Your task to perform on an android device: open app "Pinterest" Image 0: 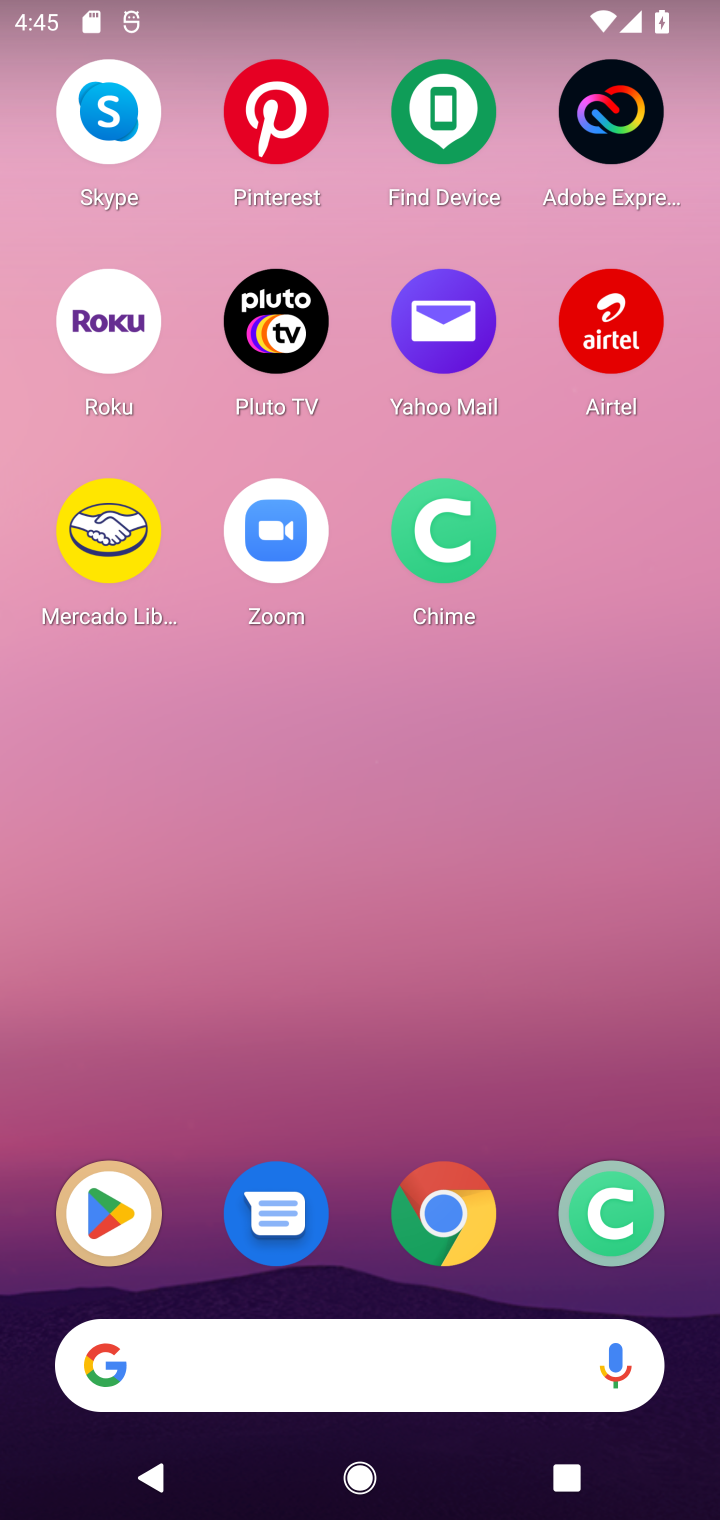
Step 0: drag from (456, 1022) to (596, 163)
Your task to perform on an android device: open app "Pinterest" Image 1: 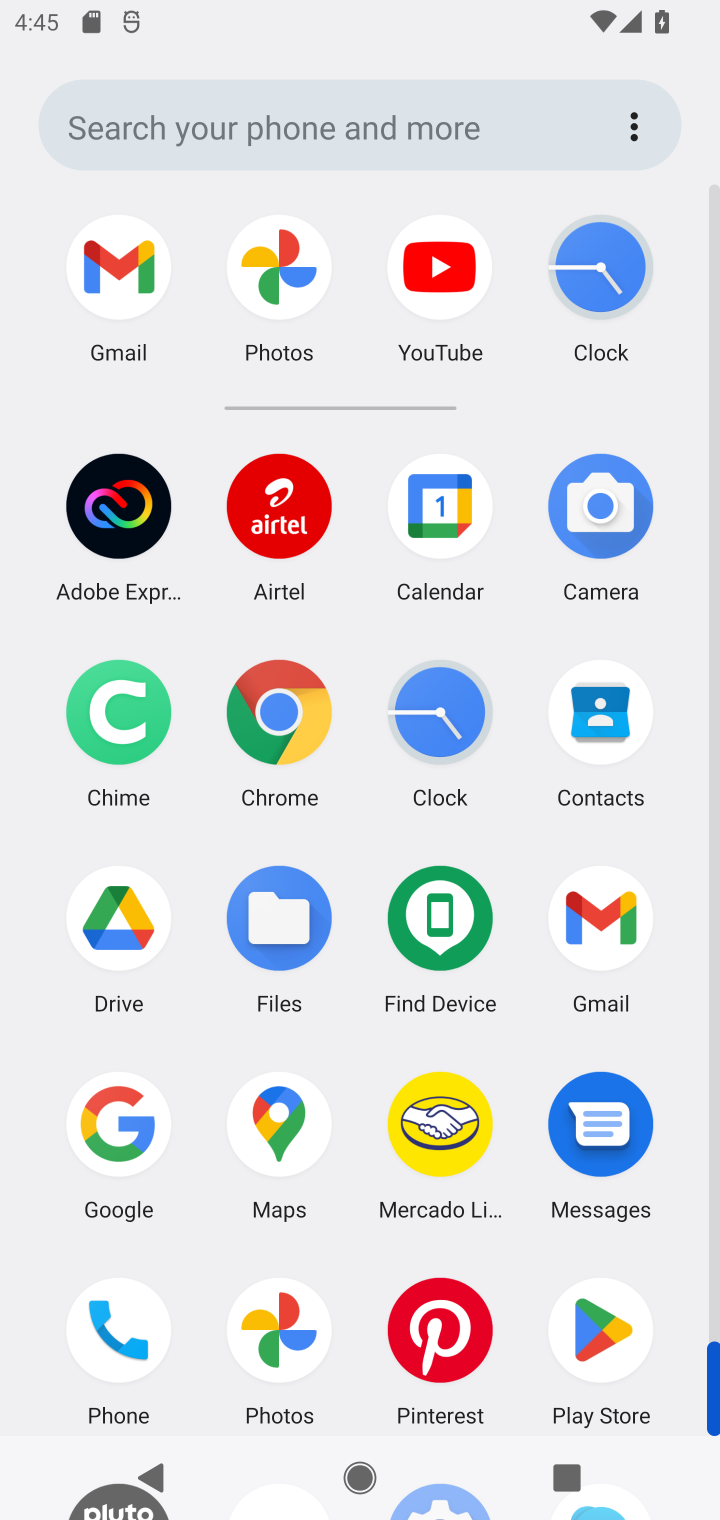
Step 1: click (588, 1332)
Your task to perform on an android device: open app "Pinterest" Image 2: 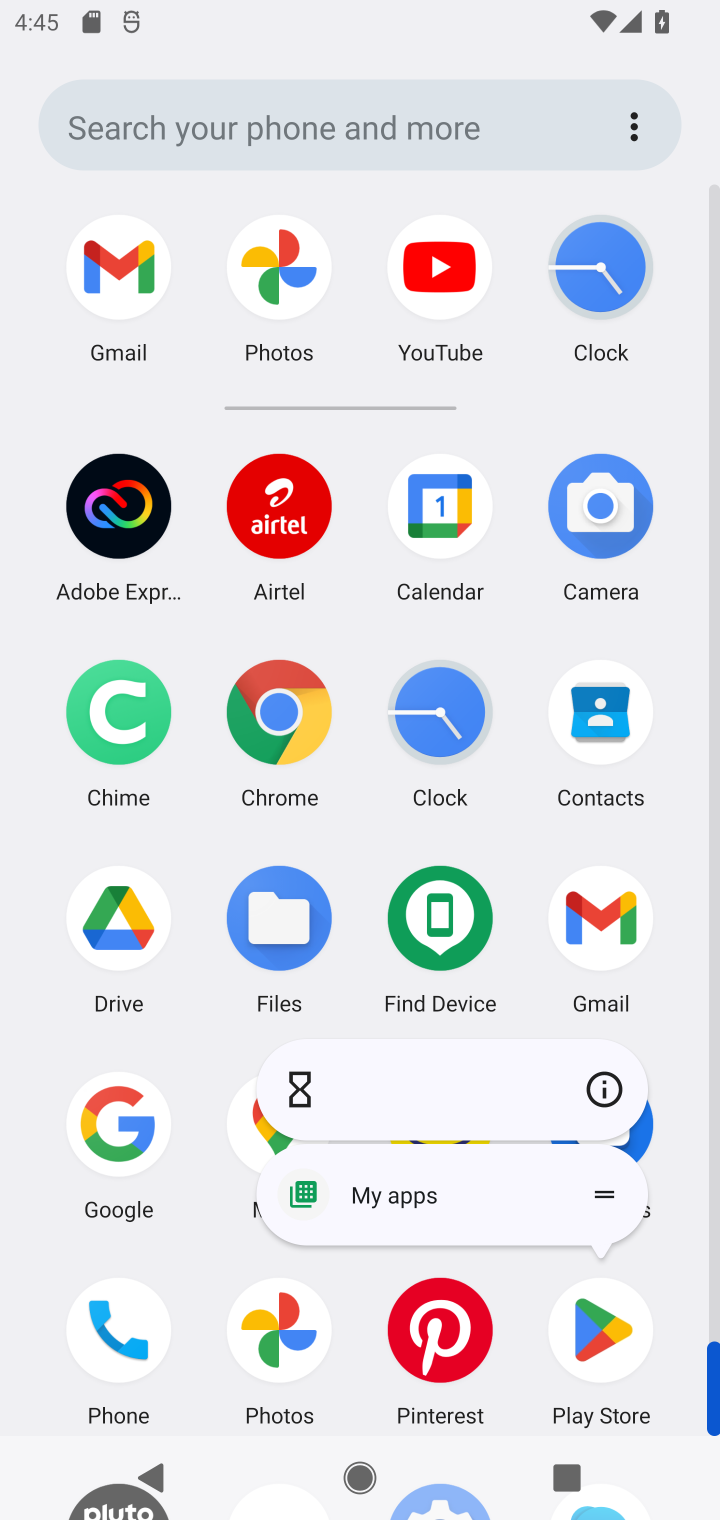
Step 2: click (611, 1322)
Your task to perform on an android device: open app "Pinterest" Image 3: 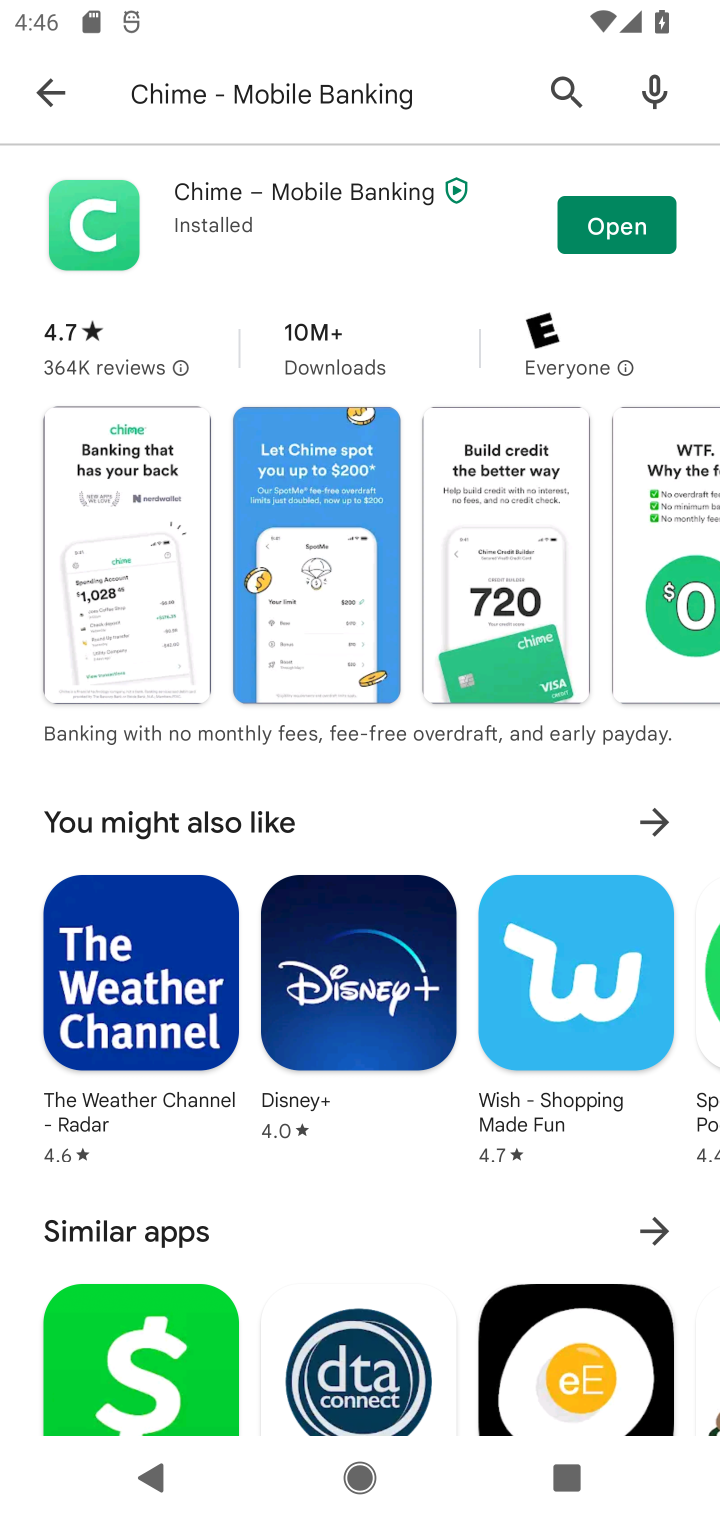
Step 3: click (447, 80)
Your task to perform on an android device: open app "Pinterest" Image 4: 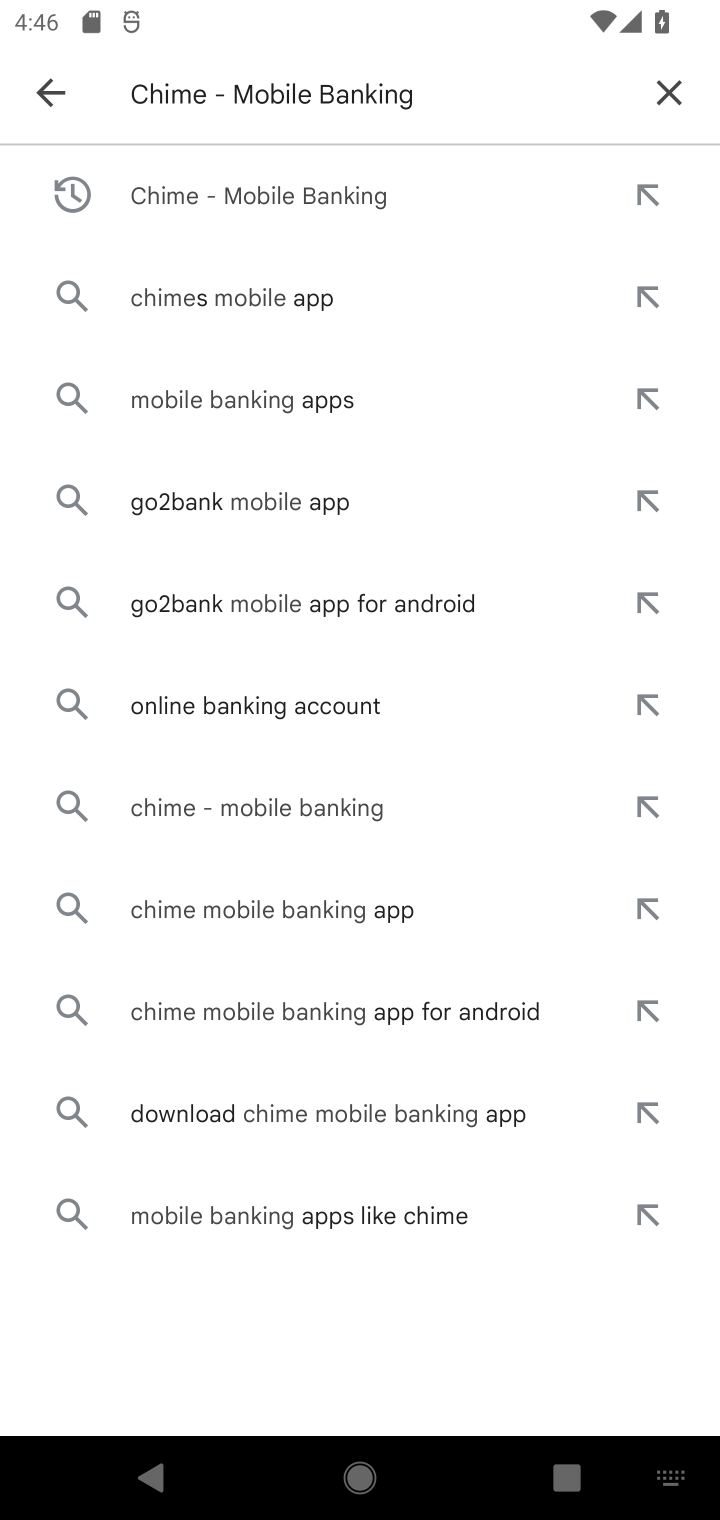
Step 4: click (655, 88)
Your task to perform on an android device: open app "Pinterest" Image 5: 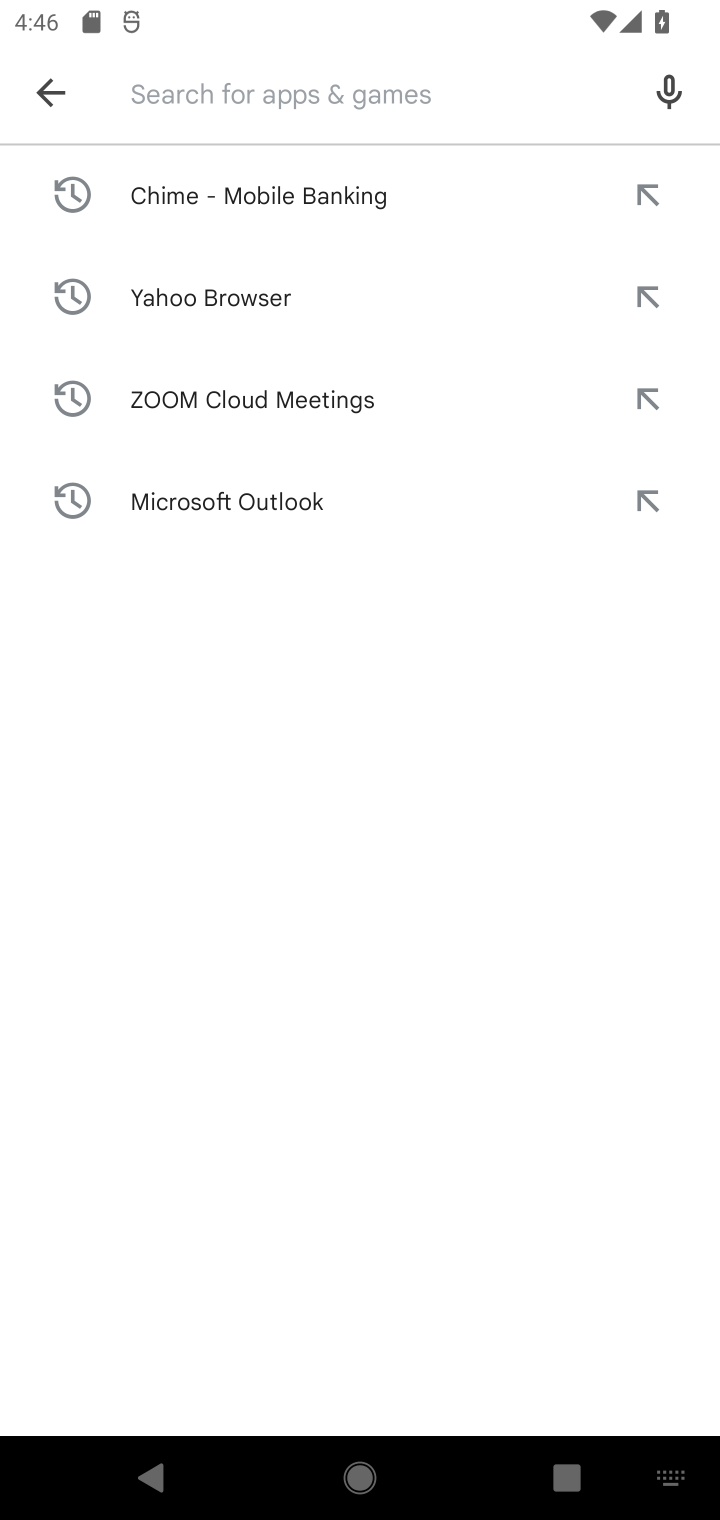
Step 5: type "Pinterest"
Your task to perform on an android device: open app "Pinterest" Image 6: 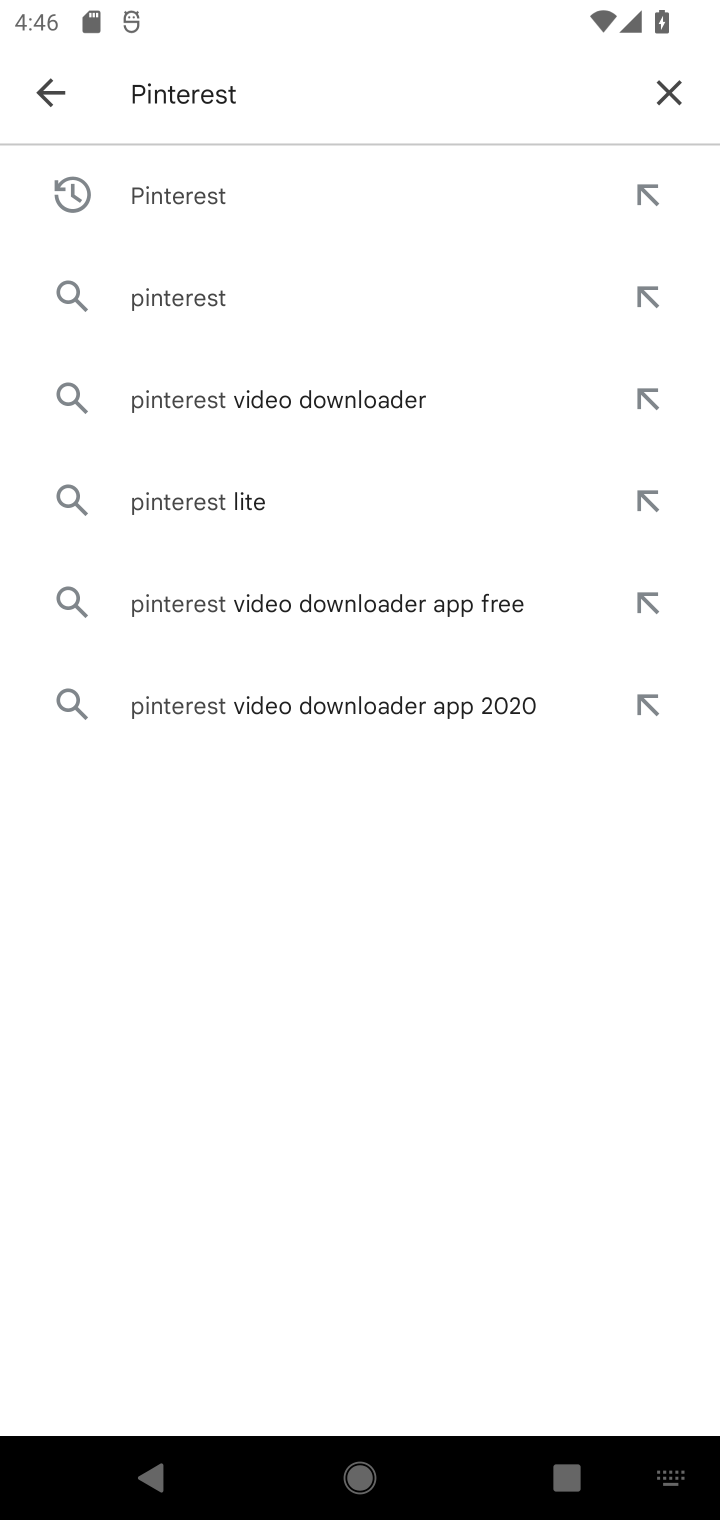
Step 6: press enter
Your task to perform on an android device: open app "Pinterest" Image 7: 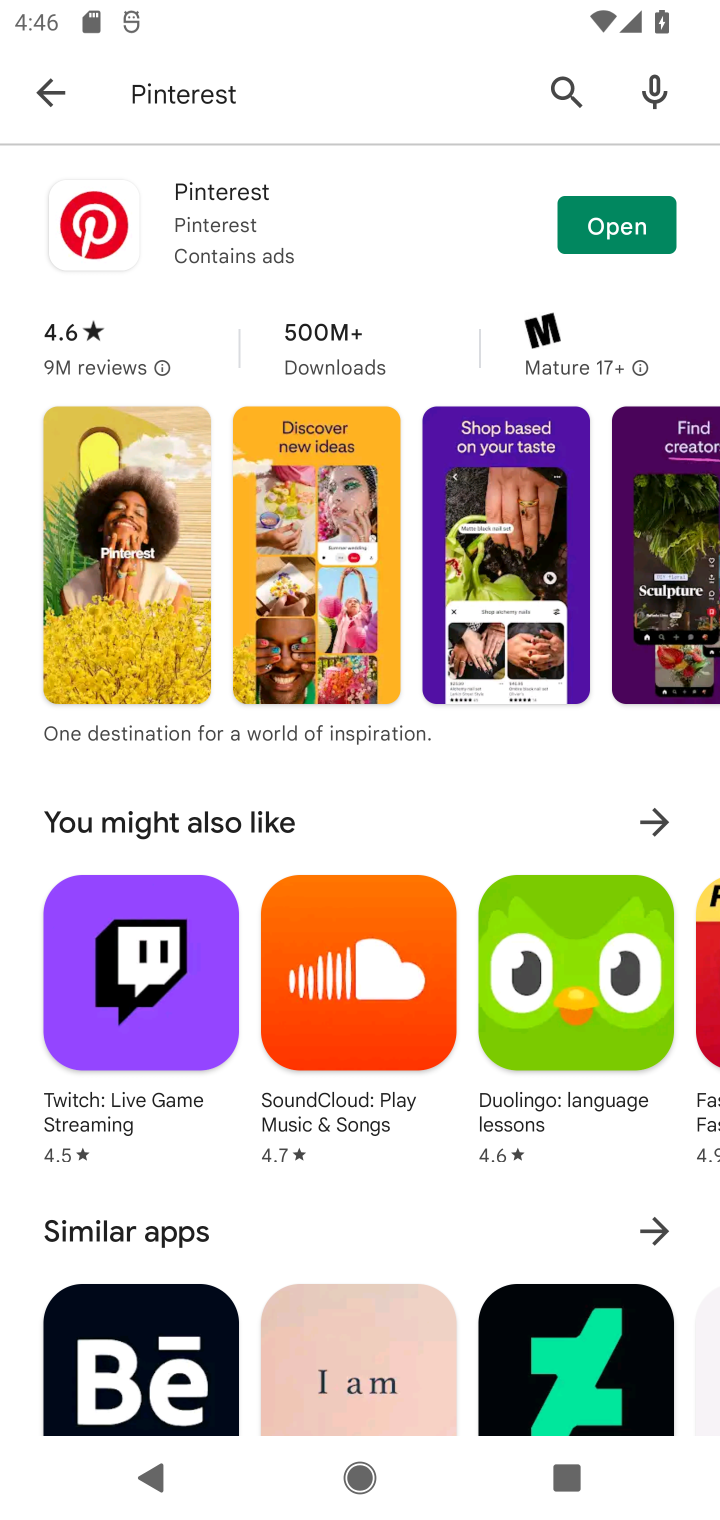
Step 7: click (622, 212)
Your task to perform on an android device: open app "Pinterest" Image 8: 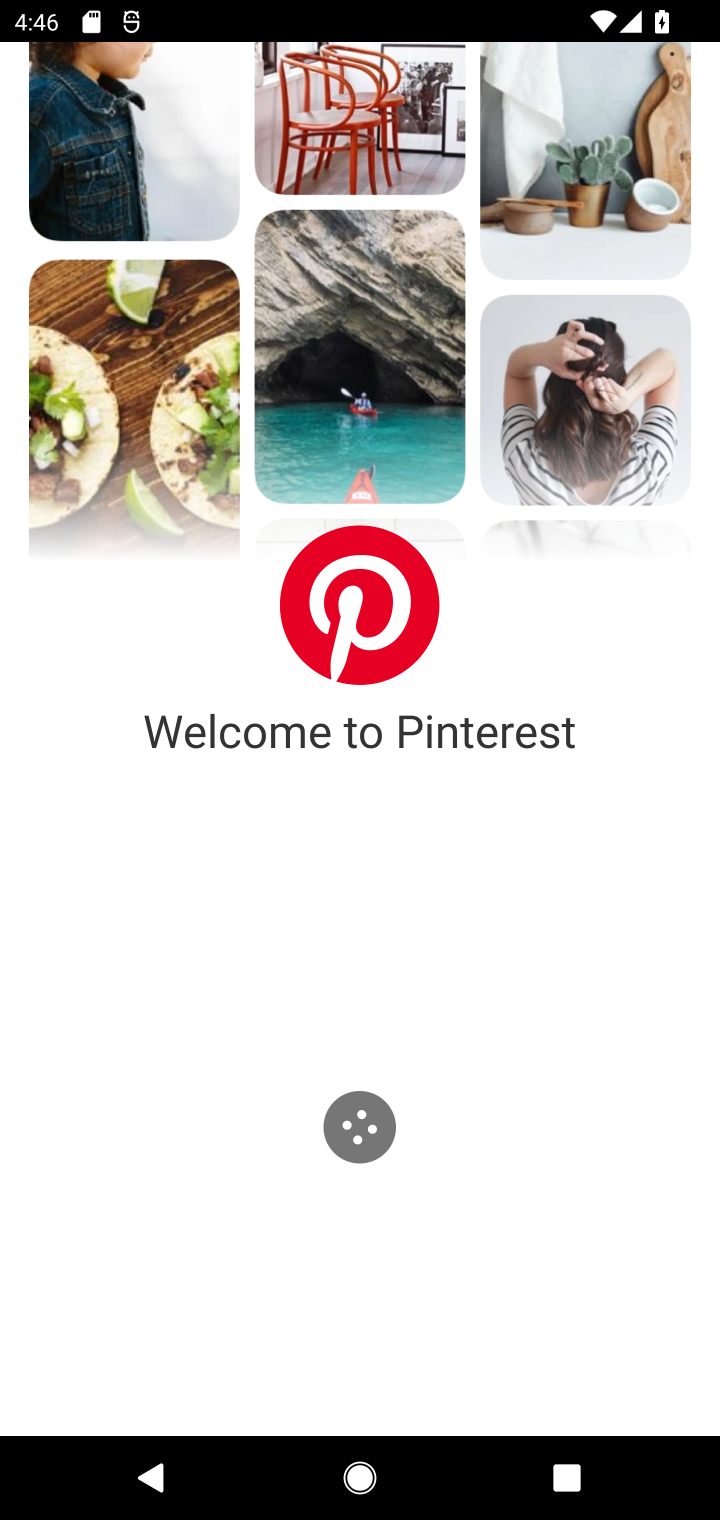
Step 8: task complete